Your task to perform on an android device: Open settings Image 0: 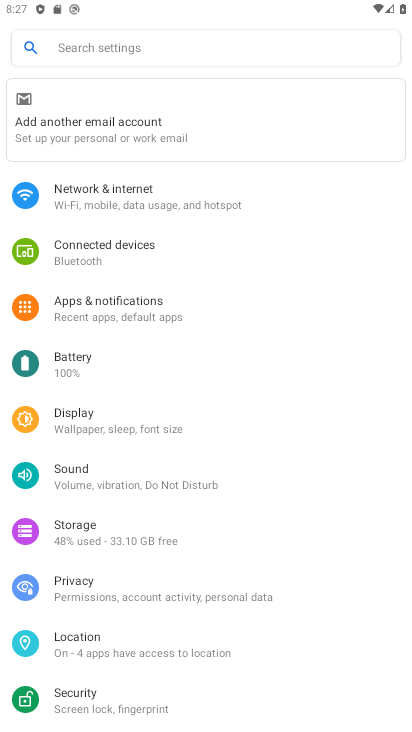
Step 0: task complete